Your task to perform on an android device: see sites visited before in the chrome app Image 0: 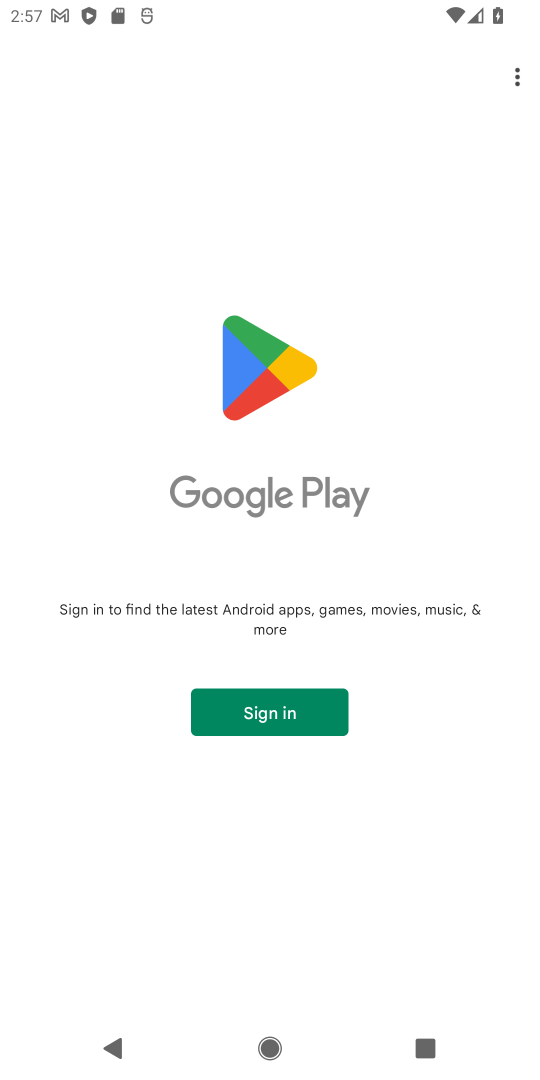
Step 0: press home button
Your task to perform on an android device: see sites visited before in the chrome app Image 1: 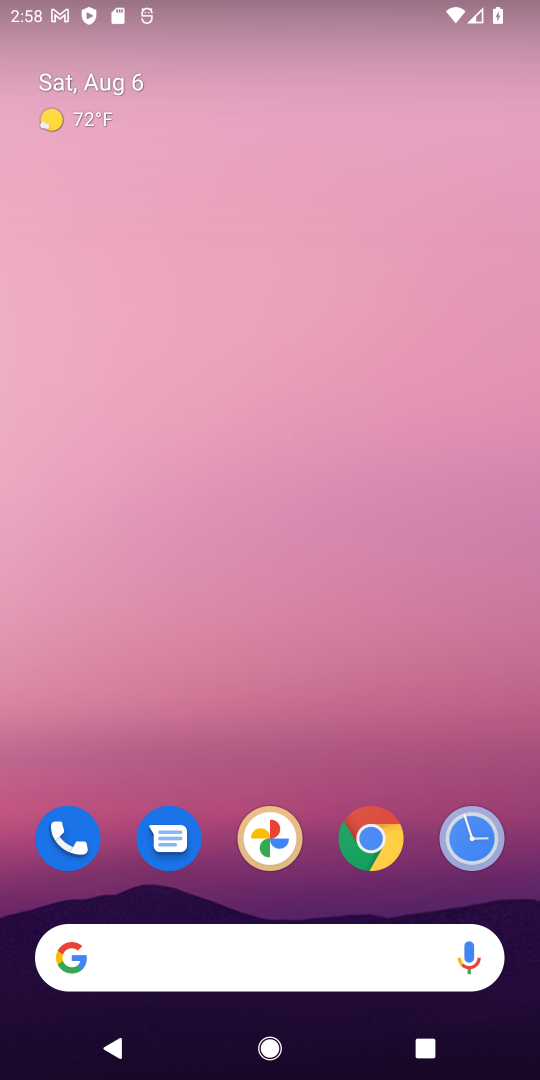
Step 1: click (356, 844)
Your task to perform on an android device: see sites visited before in the chrome app Image 2: 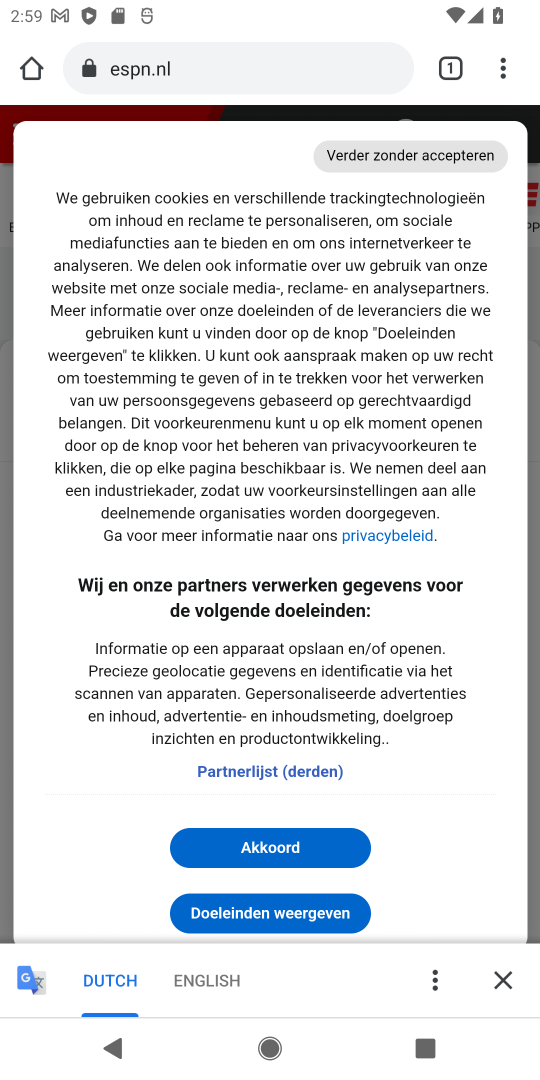
Step 2: press back button
Your task to perform on an android device: see sites visited before in the chrome app Image 3: 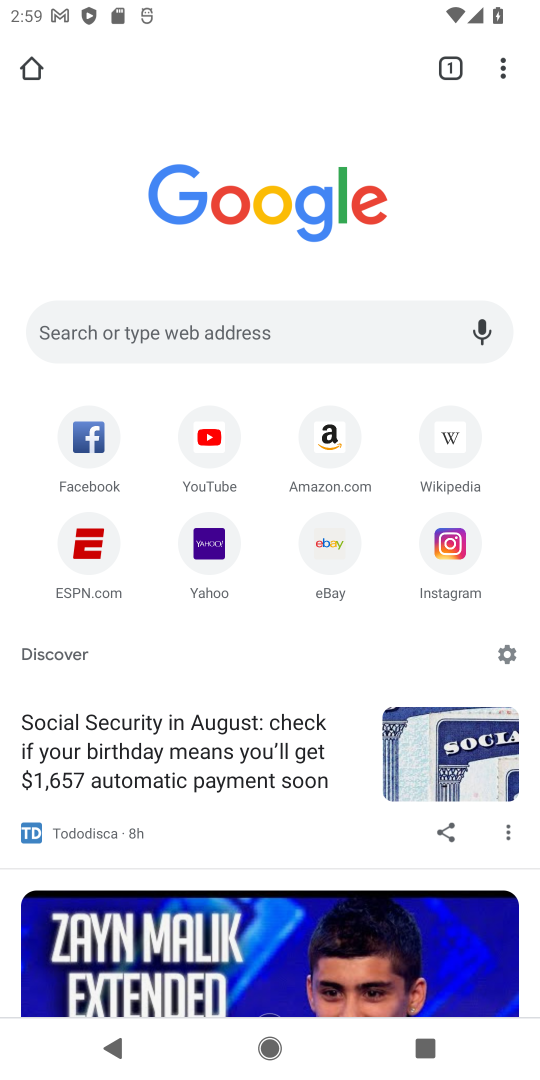
Step 3: click (500, 75)
Your task to perform on an android device: see sites visited before in the chrome app Image 4: 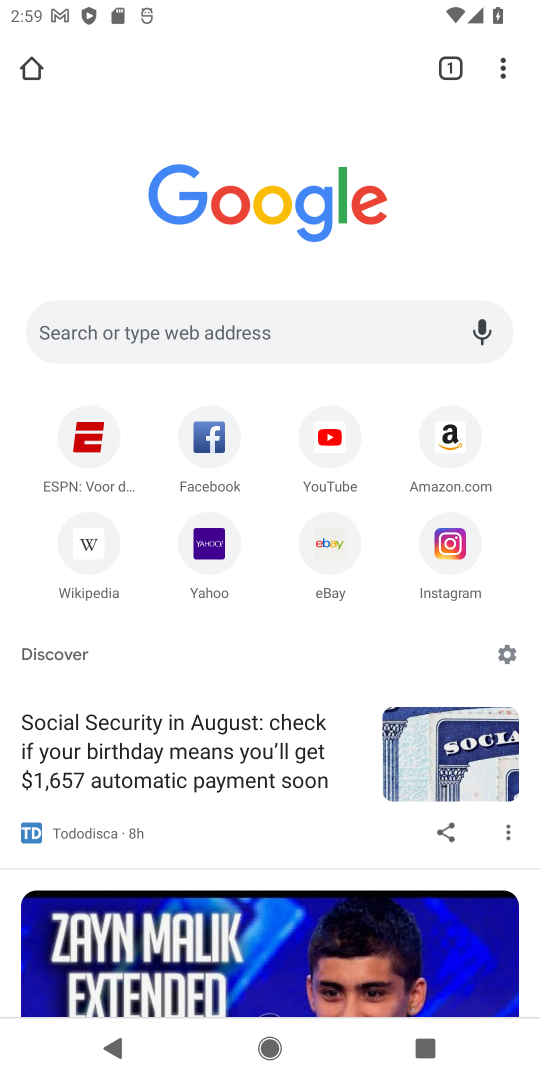
Step 4: task complete